Your task to perform on an android device: toggle priority inbox in the gmail app Image 0: 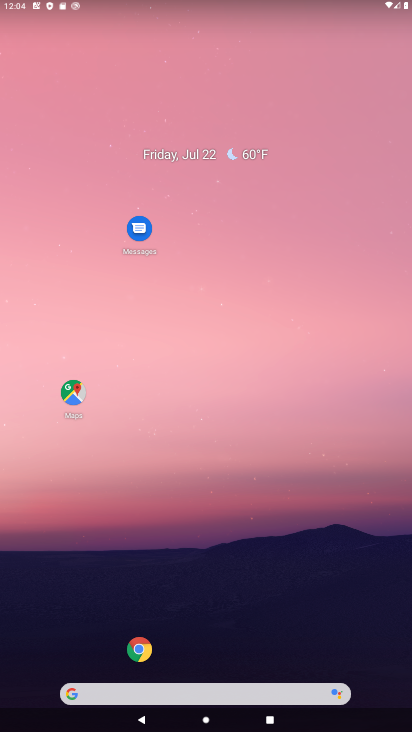
Step 0: drag from (37, 670) to (127, 142)
Your task to perform on an android device: toggle priority inbox in the gmail app Image 1: 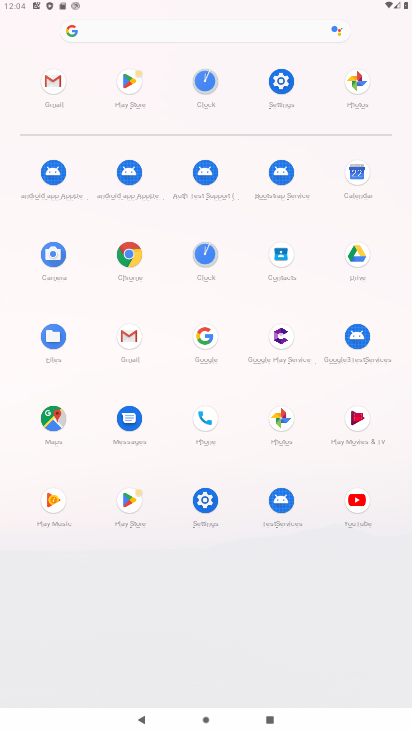
Step 1: click (44, 90)
Your task to perform on an android device: toggle priority inbox in the gmail app Image 2: 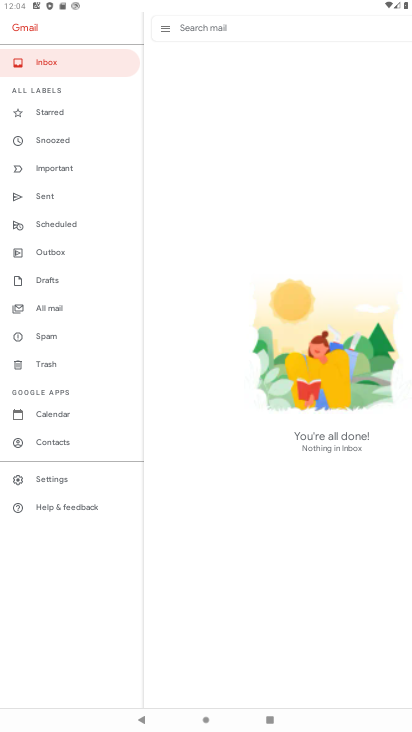
Step 2: click (47, 475)
Your task to perform on an android device: toggle priority inbox in the gmail app Image 3: 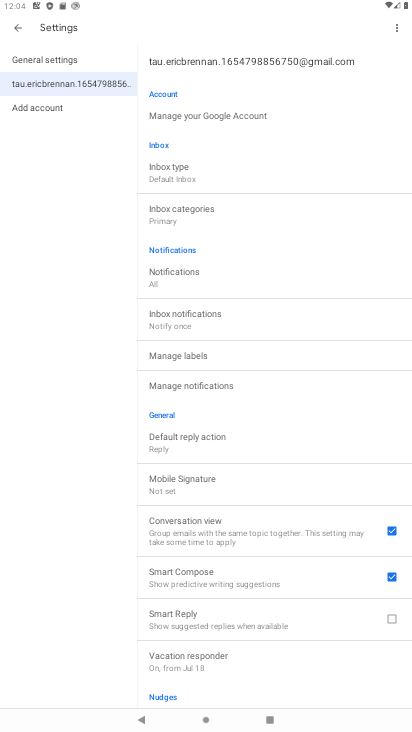
Step 3: click (162, 174)
Your task to perform on an android device: toggle priority inbox in the gmail app Image 4: 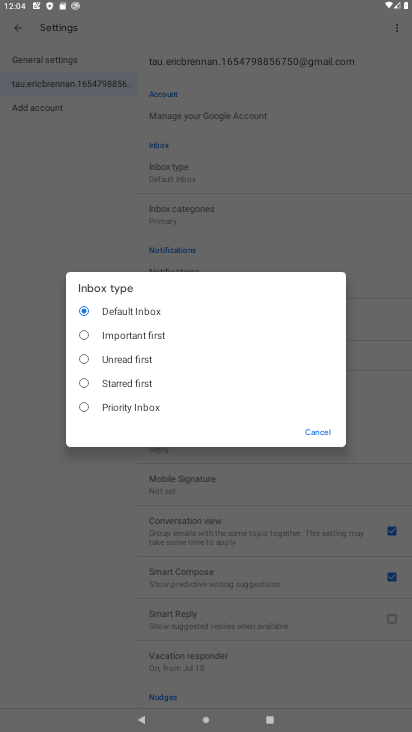
Step 4: click (130, 405)
Your task to perform on an android device: toggle priority inbox in the gmail app Image 5: 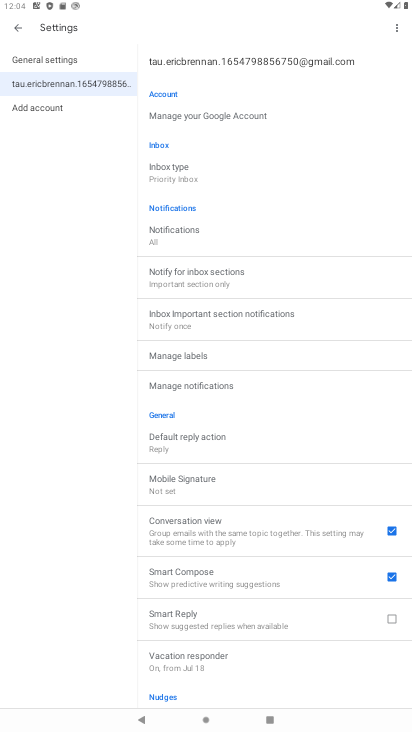
Step 5: task complete